Your task to perform on an android device: turn off improve location accuracy Image 0: 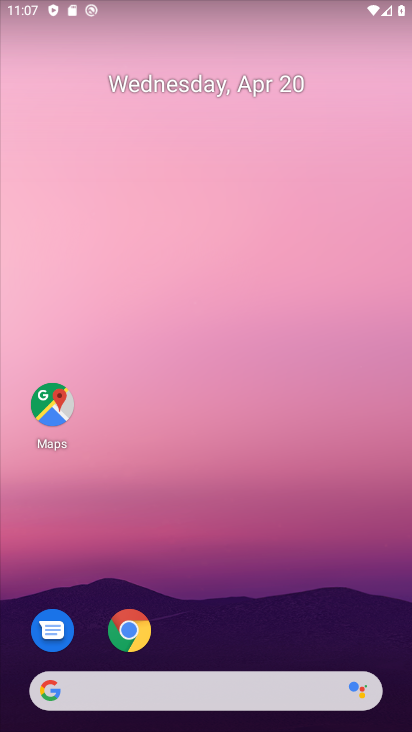
Step 0: drag from (185, 665) to (251, 89)
Your task to perform on an android device: turn off improve location accuracy Image 1: 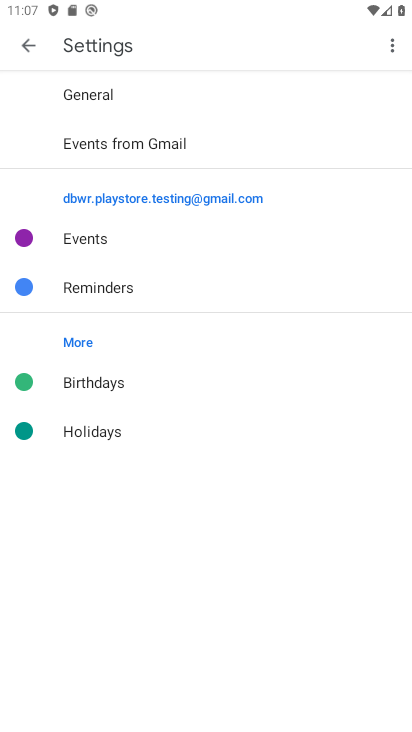
Step 1: press back button
Your task to perform on an android device: turn off improve location accuracy Image 2: 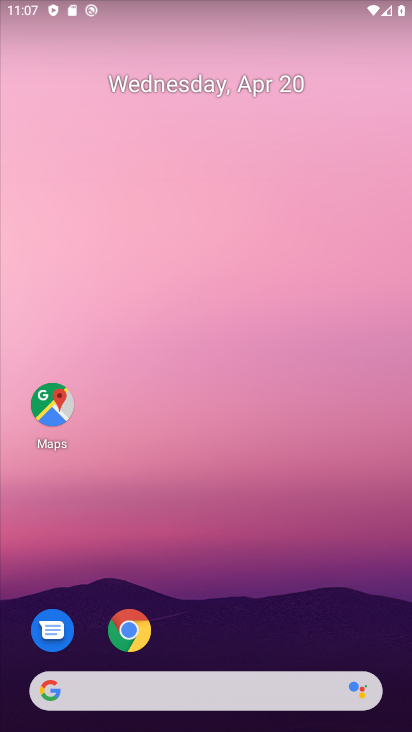
Step 2: drag from (198, 571) to (337, 16)
Your task to perform on an android device: turn off improve location accuracy Image 3: 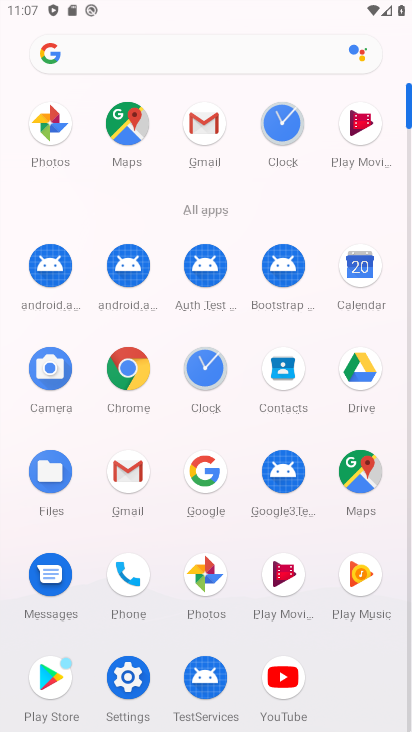
Step 3: click (135, 686)
Your task to perform on an android device: turn off improve location accuracy Image 4: 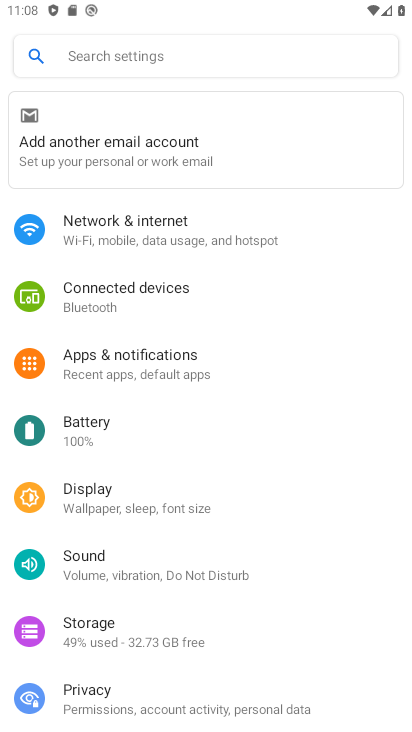
Step 4: drag from (152, 558) to (281, 141)
Your task to perform on an android device: turn off improve location accuracy Image 5: 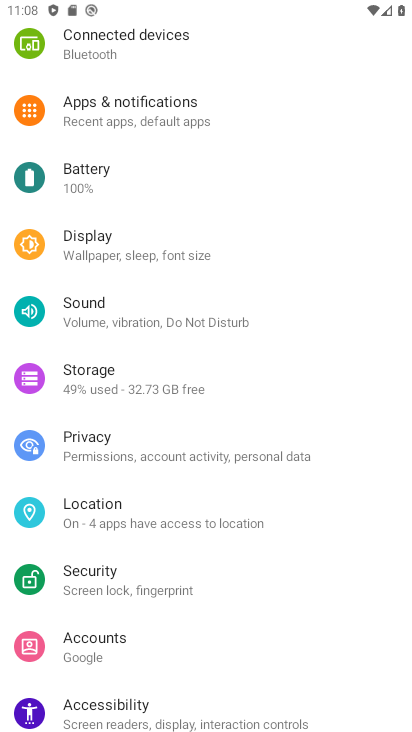
Step 5: click (142, 516)
Your task to perform on an android device: turn off improve location accuracy Image 6: 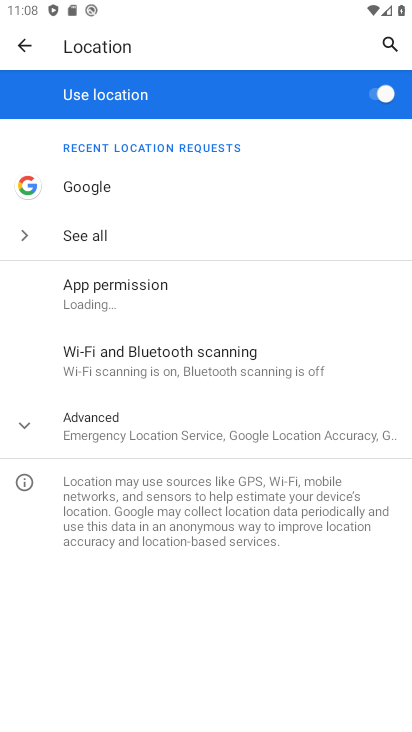
Step 6: click (218, 434)
Your task to perform on an android device: turn off improve location accuracy Image 7: 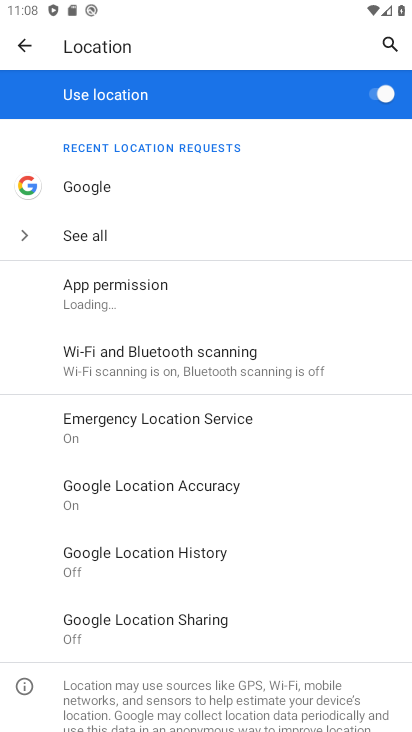
Step 7: click (228, 499)
Your task to perform on an android device: turn off improve location accuracy Image 8: 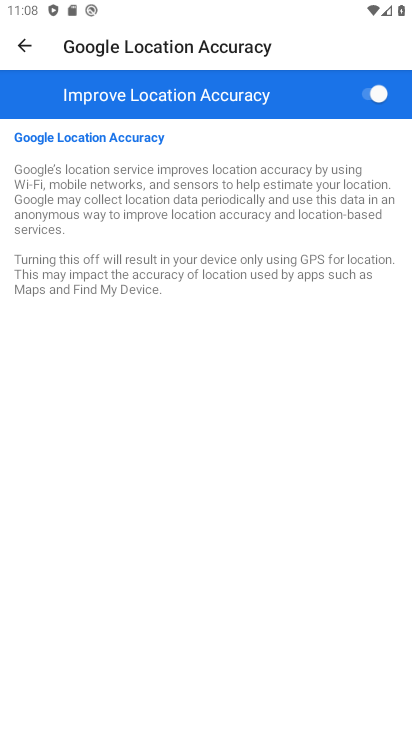
Step 8: click (360, 88)
Your task to perform on an android device: turn off improve location accuracy Image 9: 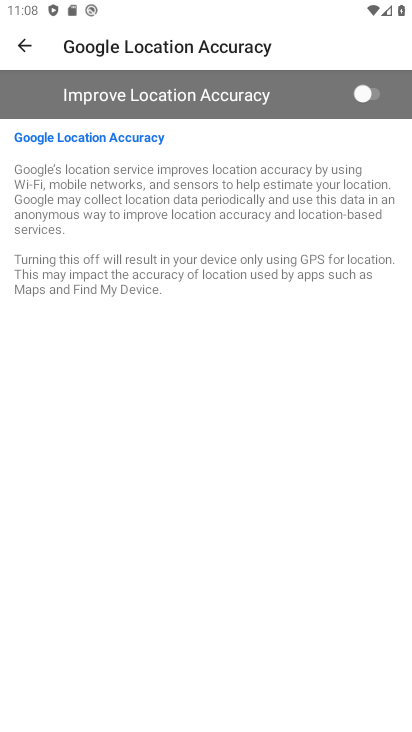
Step 9: task complete